Your task to perform on an android device: star an email in the gmail app Image 0: 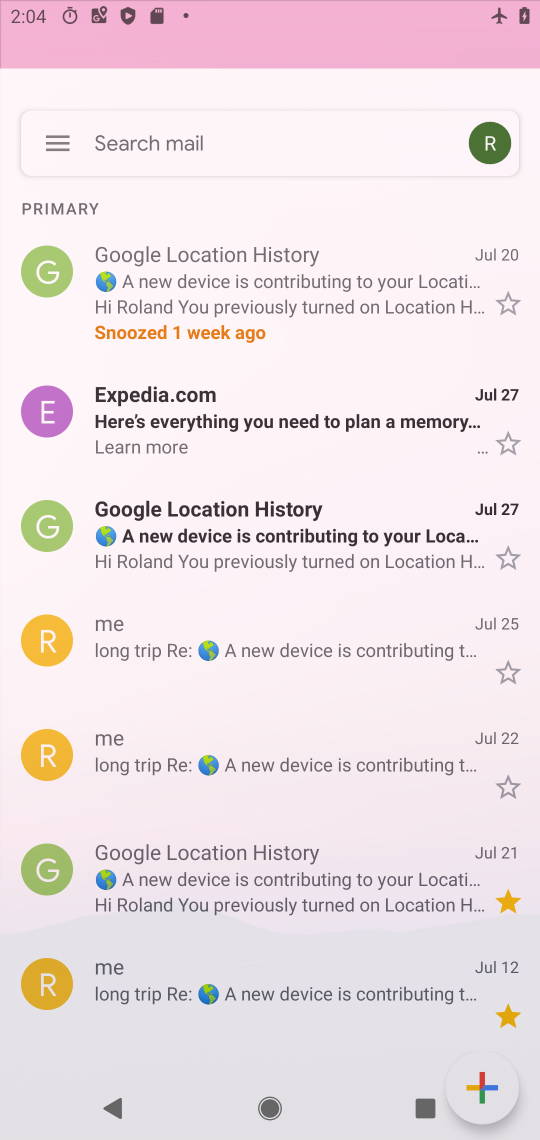
Step 0: press home button
Your task to perform on an android device: star an email in the gmail app Image 1: 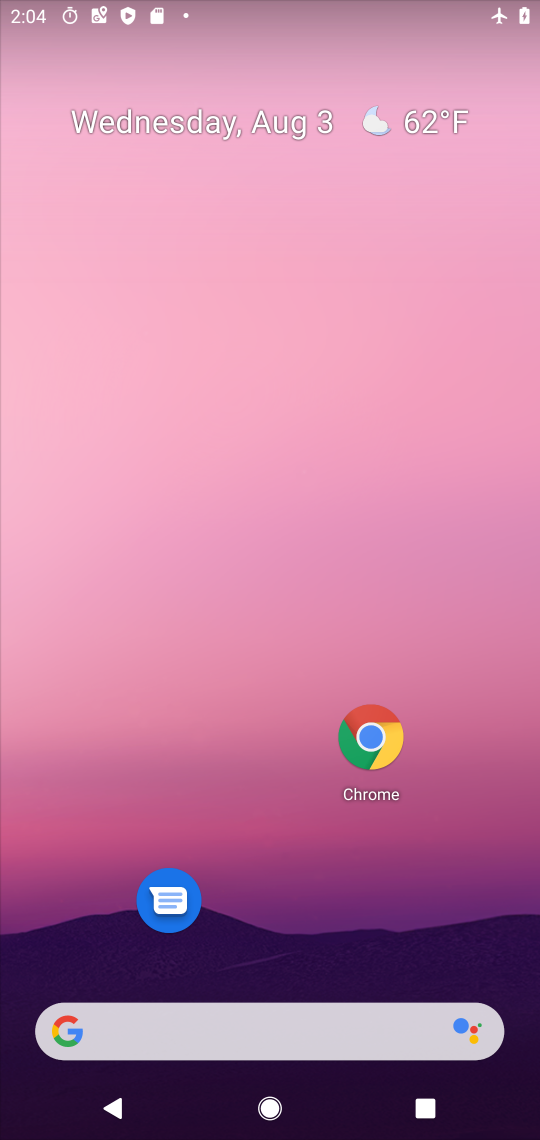
Step 1: drag from (260, 706) to (285, 72)
Your task to perform on an android device: star an email in the gmail app Image 2: 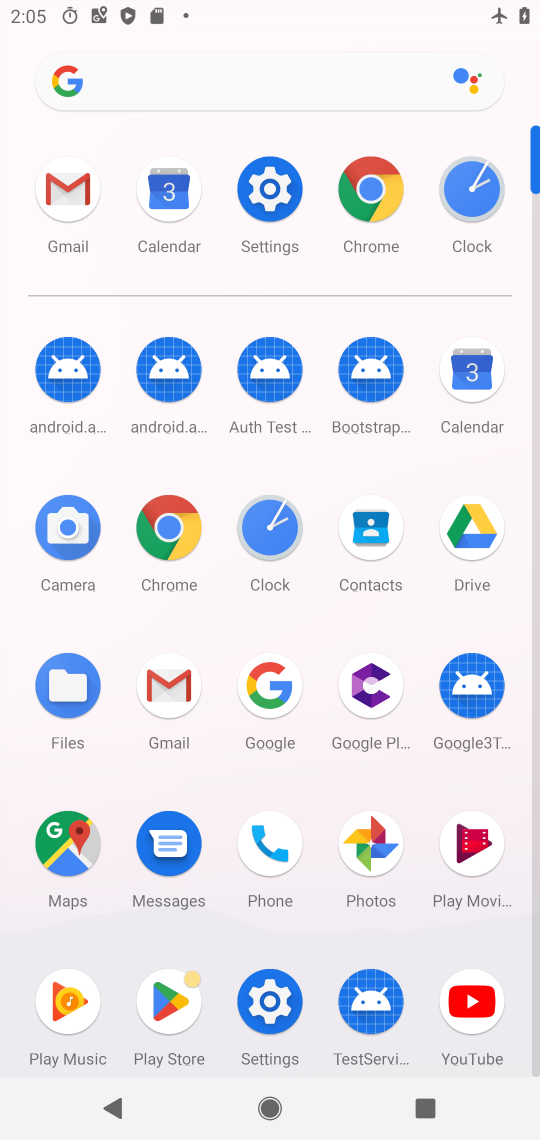
Step 2: click (169, 683)
Your task to perform on an android device: star an email in the gmail app Image 3: 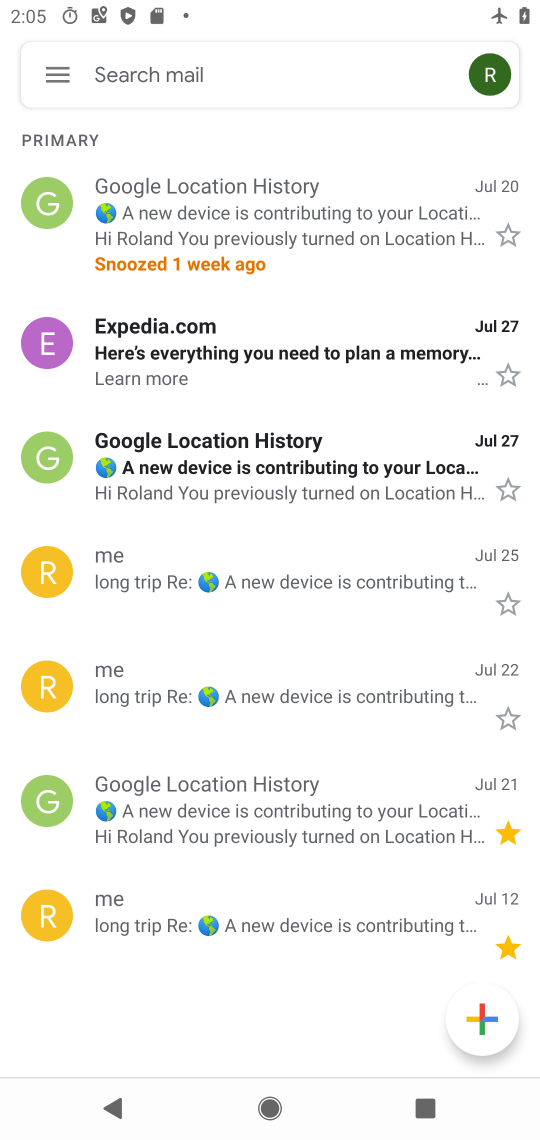
Step 3: click (47, 58)
Your task to perform on an android device: star an email in the gmail app Image 4: 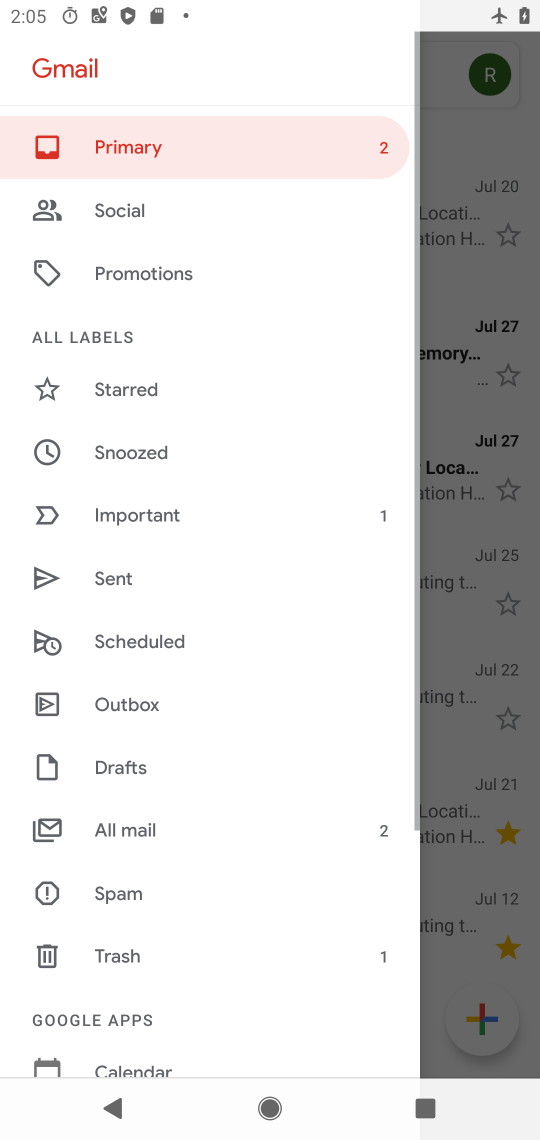
Step 4: click (477, 302)
Your task to perform on an android device: star an email in the gmail app Image 5: 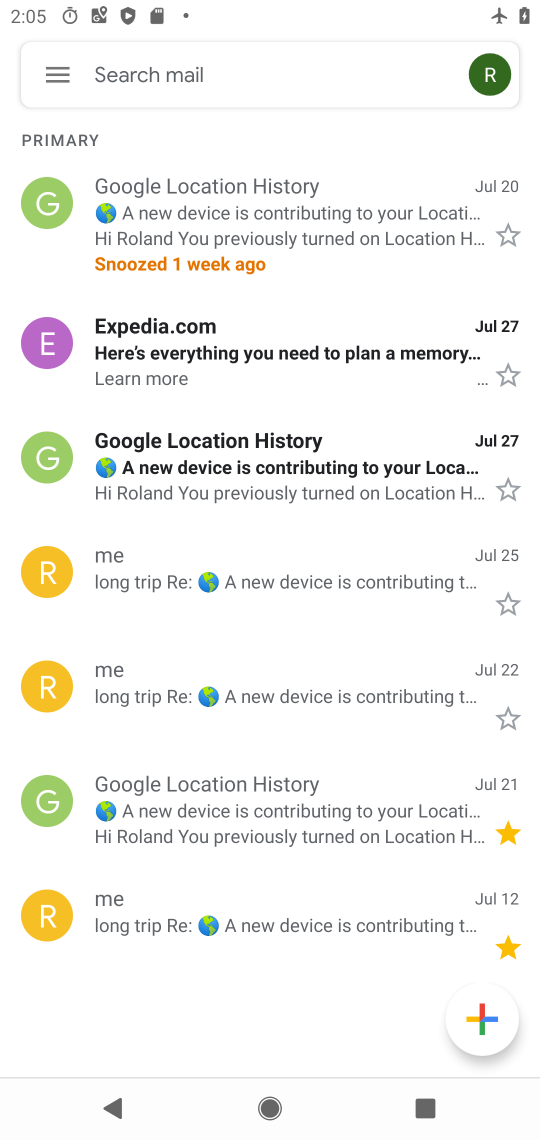
Step 5: click (508, 239)
Your task to perform on an android device: star an email in the gmail app Image 6: 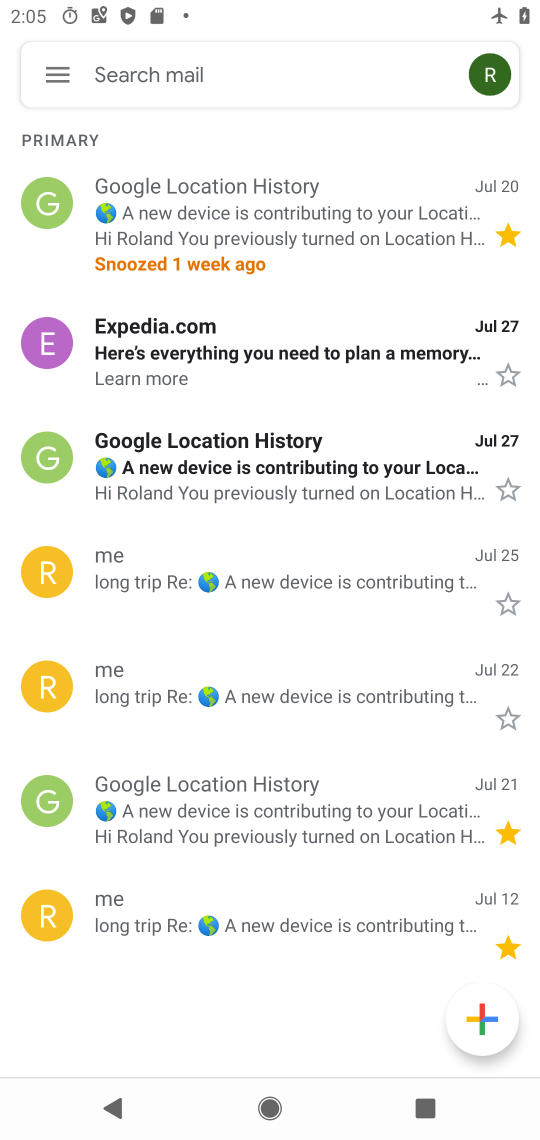
Step 6: task complete